Your task to perform on an android device: Go to Maps Image 0: 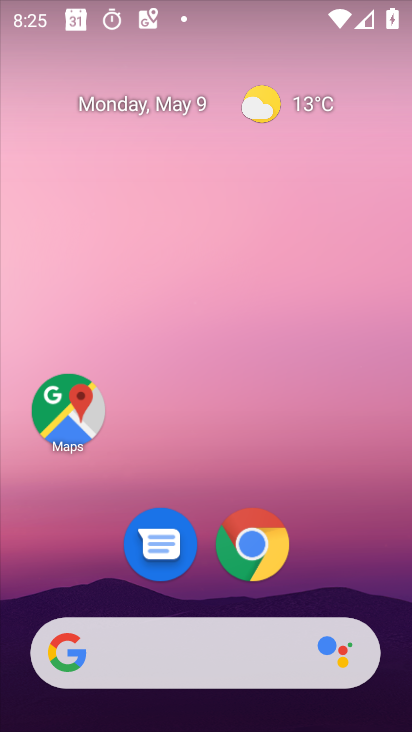
Step 0: drag from (337, 568) to (401, 42)
Your task to perform on an android device: Go to Maps Image 1: 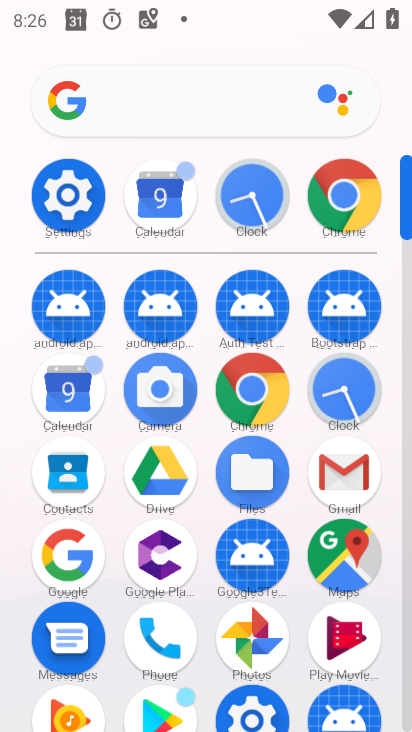
Step 1: click (352, 565)
Your task to perform on an android device: Go to Maps Image 2: 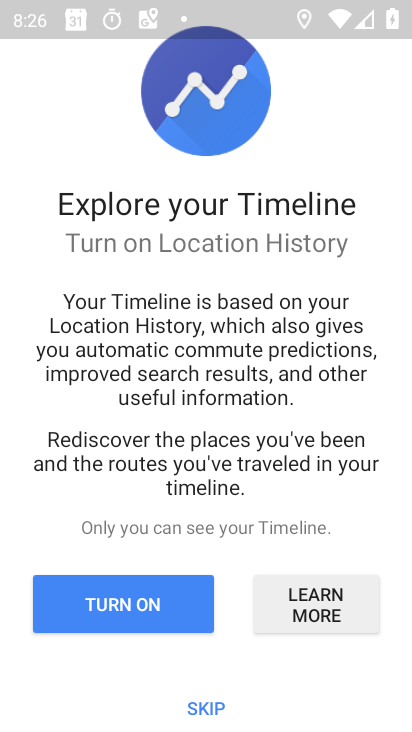
Step 2: click (202, 707)
Your task to perform on an android device: Go to Maps Image 3: 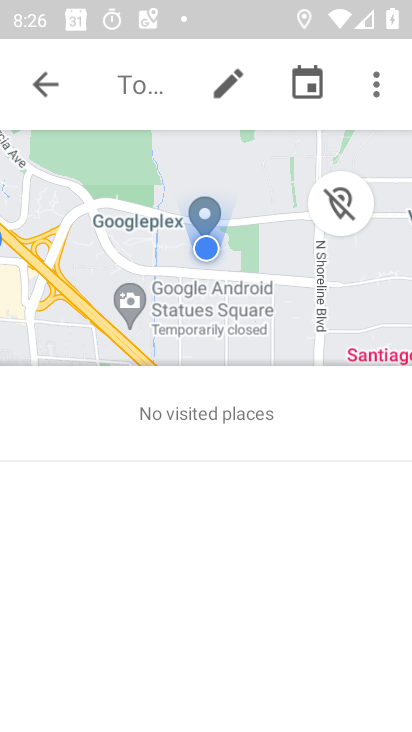
Step 3: task complete